Your task to perform on an android device: Search for seafood restaurants on Google Maps Image 0: 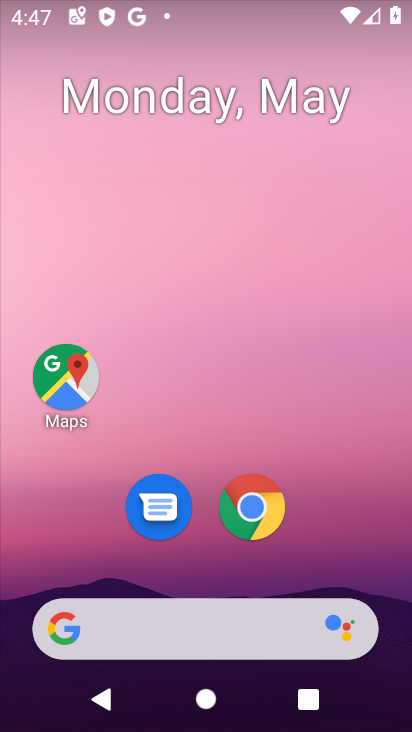
Step 0: drag from (360, 582) to (384, 68)
Your task to perform on an android device: Search for seafood restaurants on Google Maps Image 1: 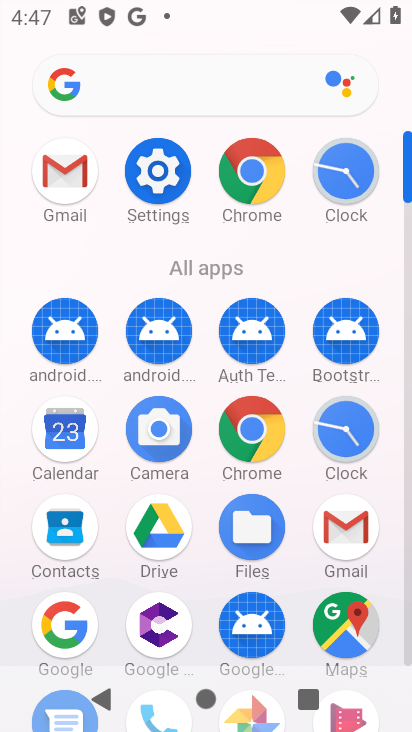
Step 1: click (344, 620)
Your task to perform on an android device: Search for seafood restaurants on Google Maps Image 2: 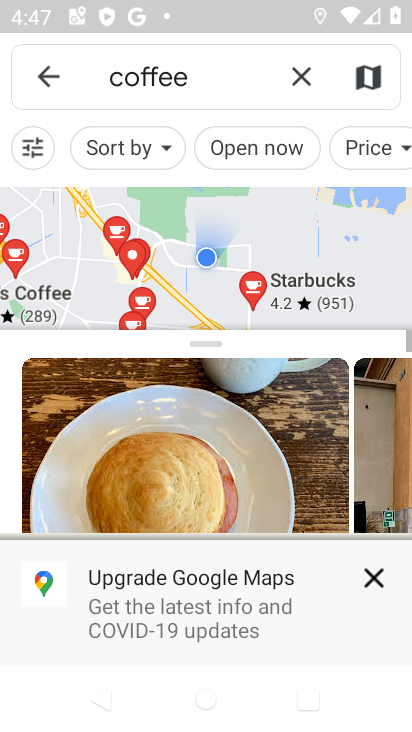
Step 2: click (313, 62)
Your task to perform on an android device: Search for seafood restaurants on Google Maps Image 3: 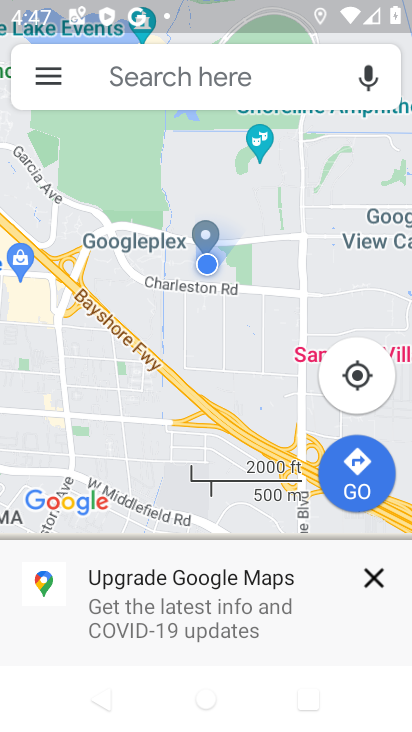
Step 3: click (264, 68)
Your task to perform on an android device: Search for seafood restaurants on Google Maps Image 4: 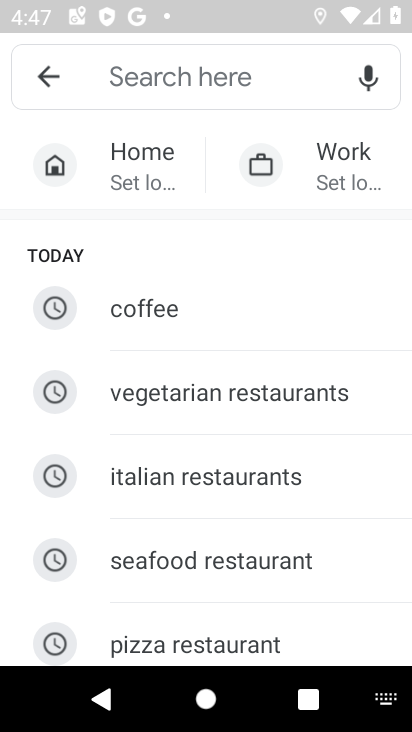
Step 4: click (182, 564)
Your task to perform on an android device: Search for seafood restaurants on Google Maps Image 5: 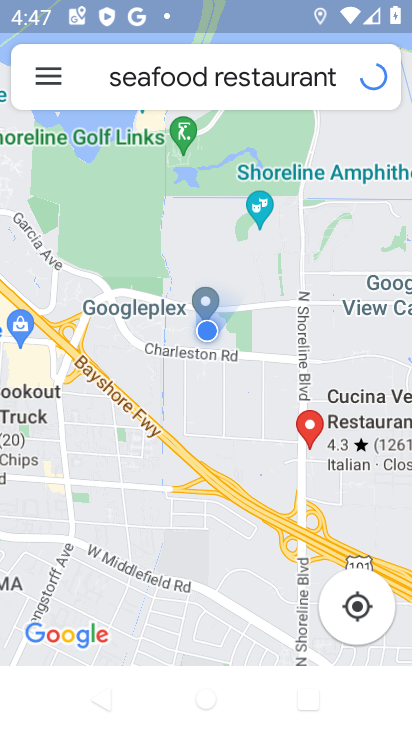
Step 5: task complete